Your task to perform on an android device: Open Amazon Image 0: 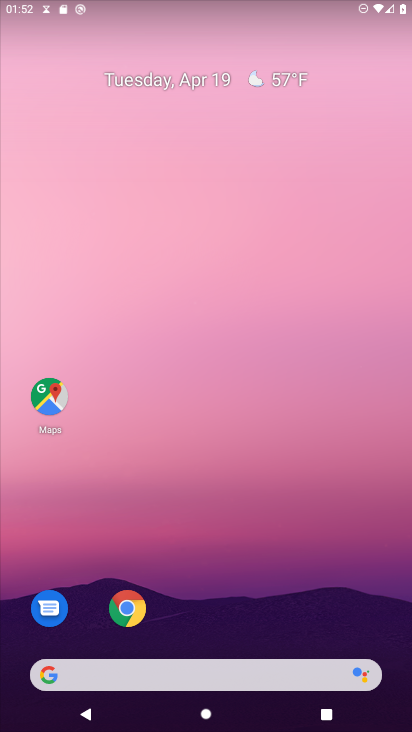
Step 0: click (127, 601)
Your task to perform on an android device: Open Amazon Image 1: 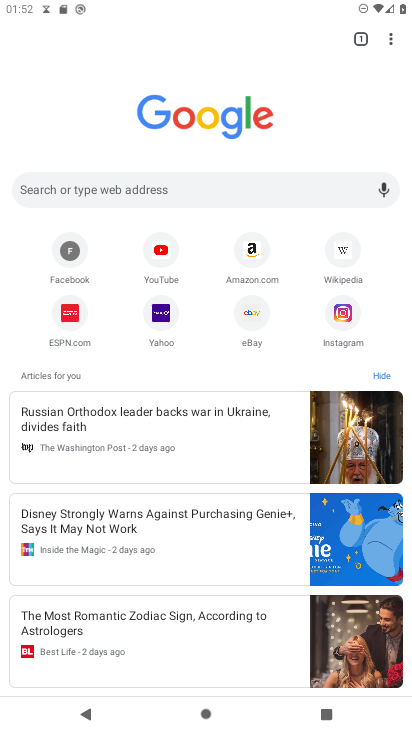
Step 1: click (260, 256)
Your task to perform on an android device: Open Amazon Image 2: 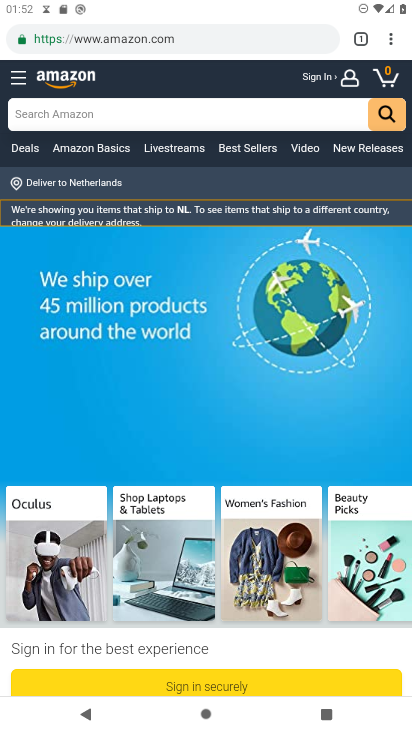
Step 2: task complete